Your task to perform on an android device: Search for runner rugs on Crate & Barrel Image 0: 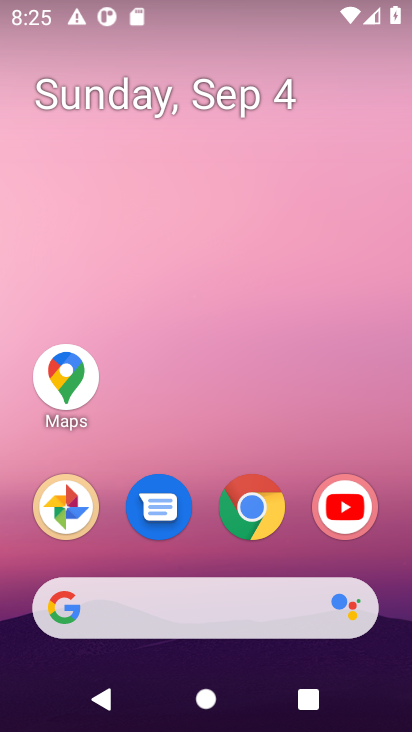
Step 0: click (247, 512)
Your task to perform on an android device: Search for runner rugs on Crate & Barrel Image 1: 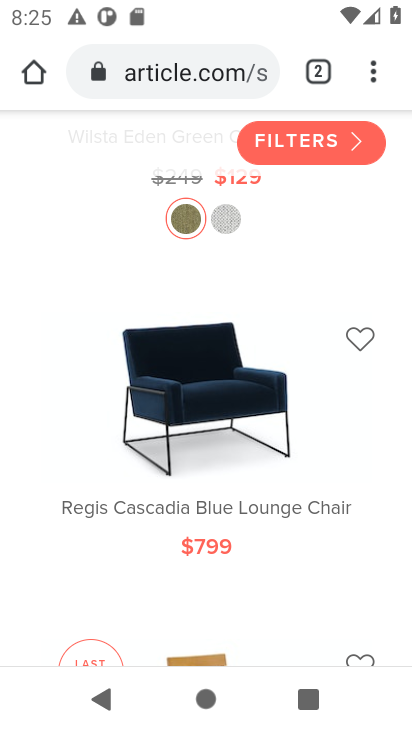
Step 1: click (182, 54)
Your task to perform on an android device: Search for runner rugs on Crate & Barrel Image 2: 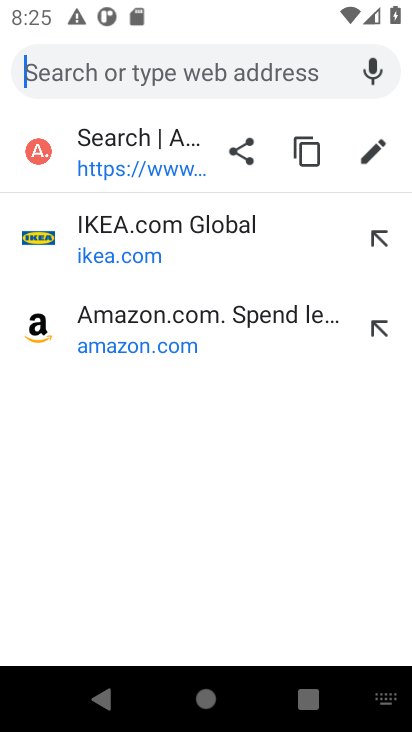
Step 2: type "Crate & Barrel"
Your task to perform on an android device: Search for runner rugs on Crate & Barrel Image 3: 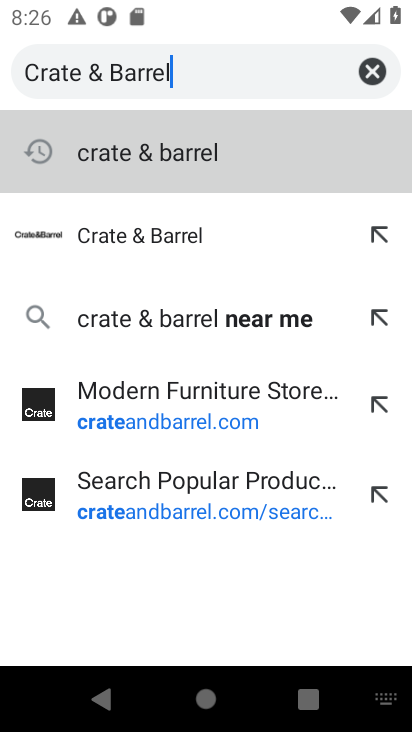
Step 3: click (124, 229)
Your task to perform on an android device: Search for runner rugs on Crate & Barrel Image 4: 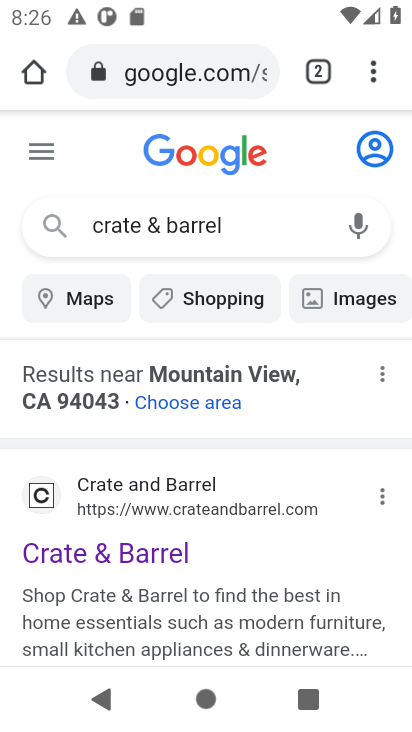
Step 4: click (113, 553)
Your task to perform on an android device: Search for runner rugs on Crate & Barrel Image 5: 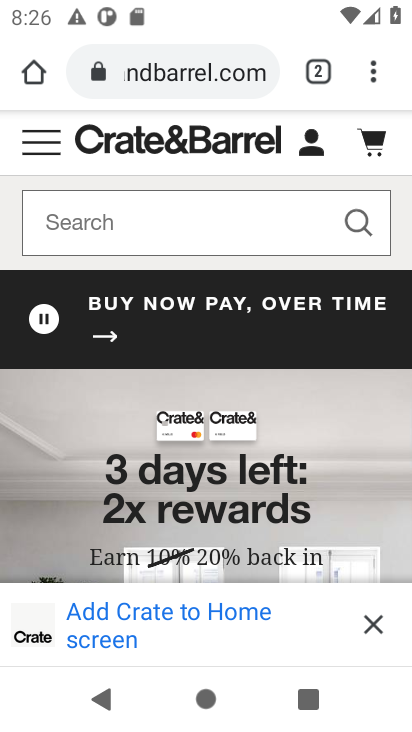
Step 5: click (160, 223)
Your task to perform on an android device: Search for runner rugs on Crate & Barrel Image 6: 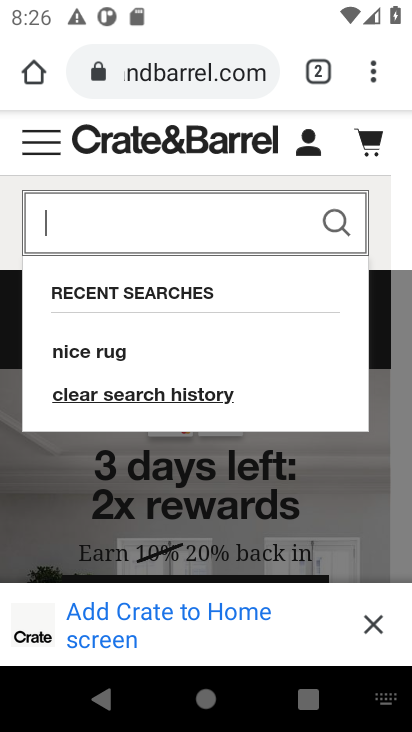
Step 6: type " runner rugs"
Your task to perform on an android device: Search for runner rugs on Crate & Barrel Image 7: 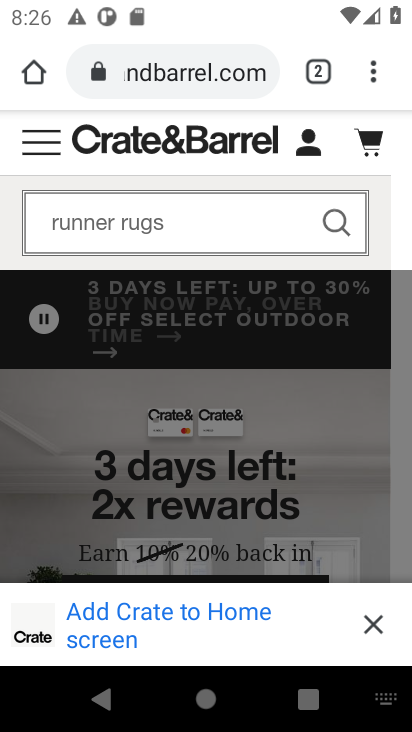
Step 7: click (332, 216)
Your task to perform on an android device: Search for runner rugs on Crate & Barrel Image 8: 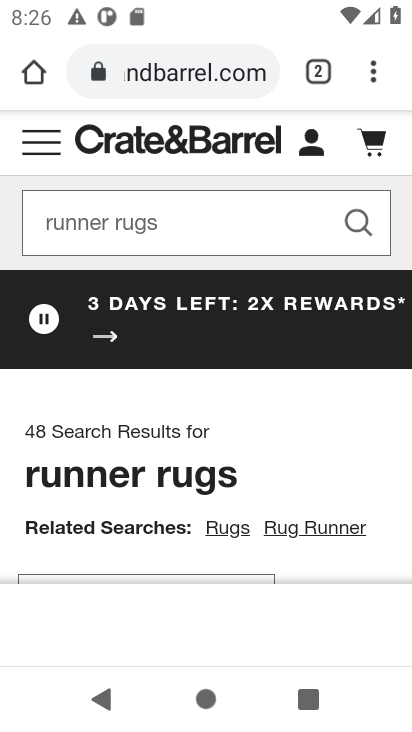
Step 8: task complete